Your task to perform on an android device: turn on bluetooth scan Image 0: 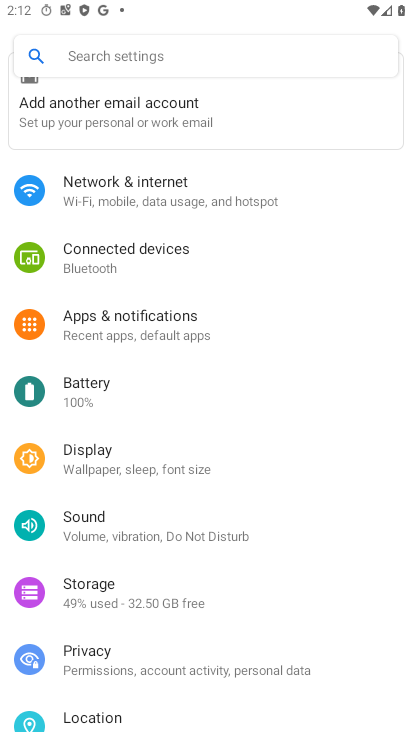
Step 0: press home button
Your task to perform on an android device: turn on bluetooth scan Image 1: 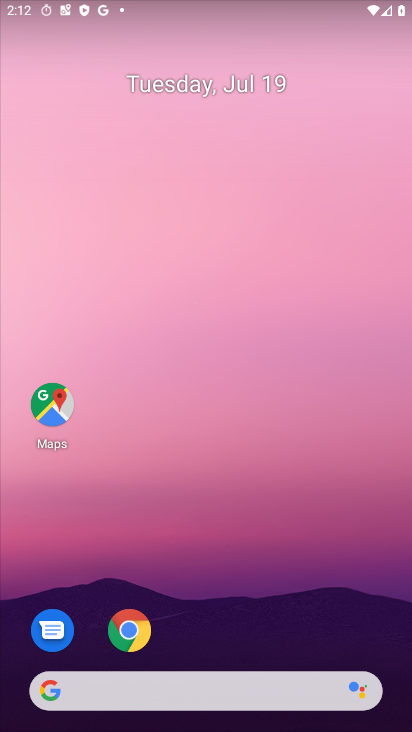
Step 1: drag from (263, 620) to (233, 43)
Your task to perform on an android device: turn on bluetooth scan Image 2: 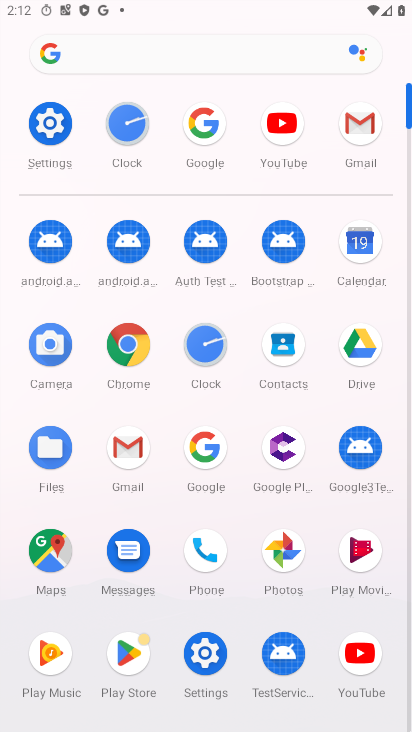
Step 2: click (30, 128)
Your task to perform on an android device: turn on bluetooth scan Image 3: 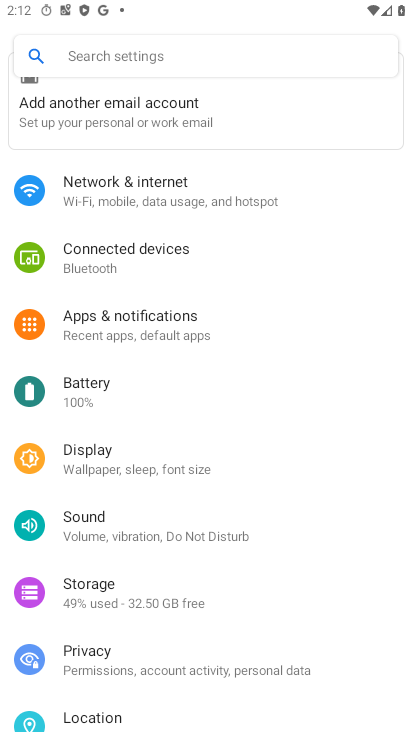
Step 3: click (238, 711)
Your task to perform on an android device: turn on bluetooth scan Image 4: 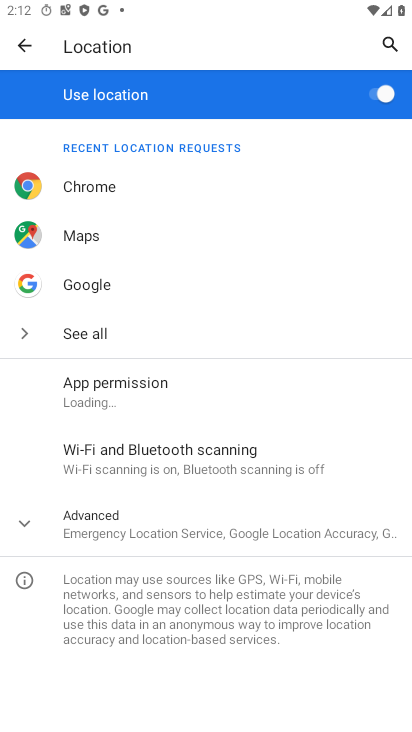
Step 4: click (224, 448)
Your task to perform on an android device: turn on bluetooth scan Image 5: 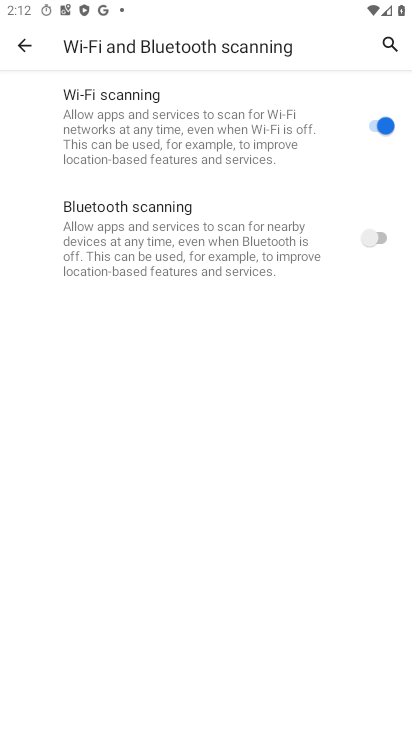
Step 5: click (378, 228)
Your task to perform on an android device: turn on bluetooth scan Image 6: 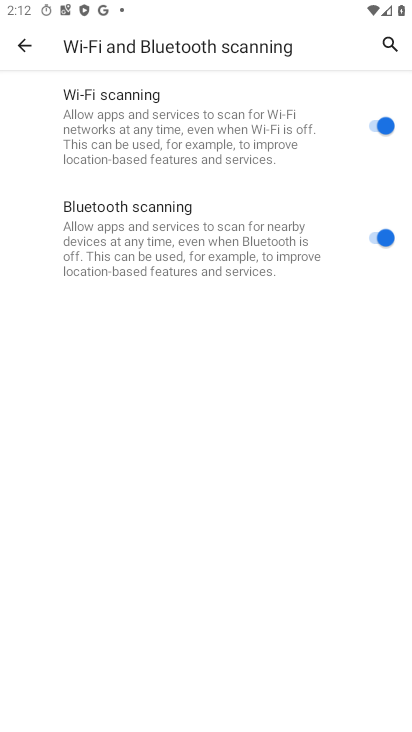
Step 6: task complete